Your task to perform on an android device: move an email to a new category in the gmail app Image 0: 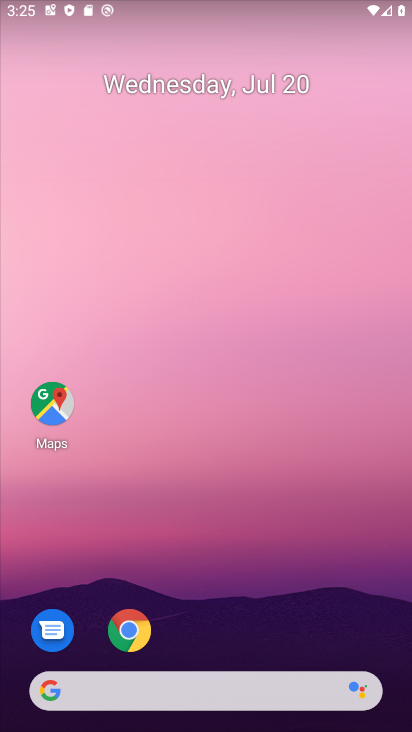
Step 0: press home button
Your task to perform on an android device: move an email to a new category in the gmail app Image 1: 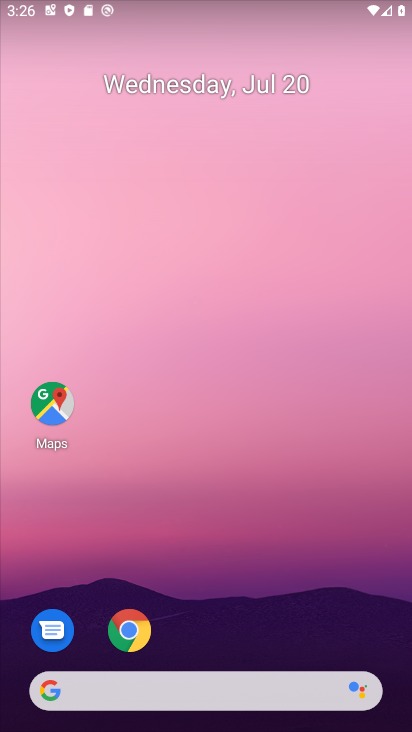
Step 1: drag from (203, 652) to (219, 203)
Your task to perform on an android device: move an email to a new category in the gmail app Image 2: 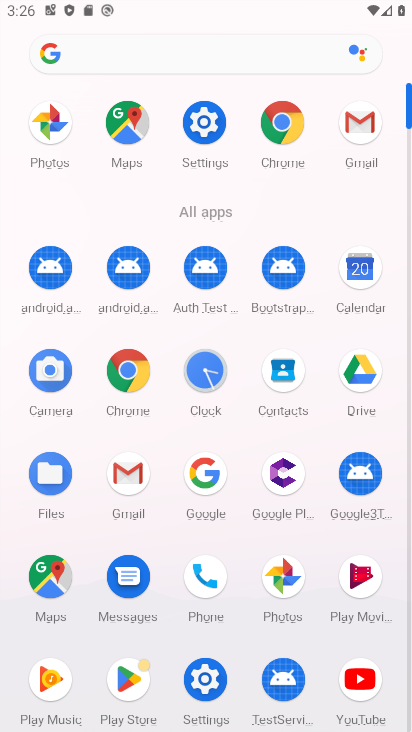
Step 2: click (125, 468)
Your task to perform on an android device: move an email to a new category in the gmail app Image 3: 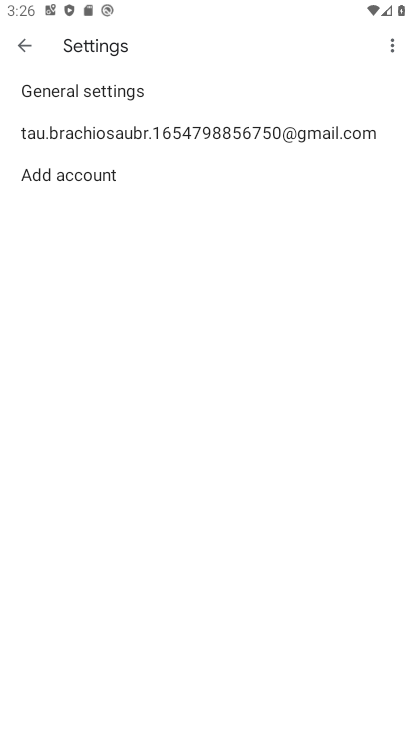
Step 3: click (25, 42)
Your task to perform on an android device: move an email to a new category in the gmail app Image 4: 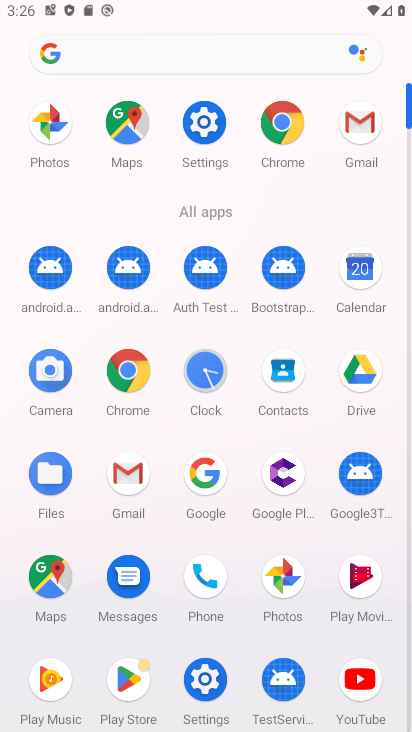
Step 4: click (363, 118)
Your task to perform on an android device: move an email to a new category in the gmail app Image 5: 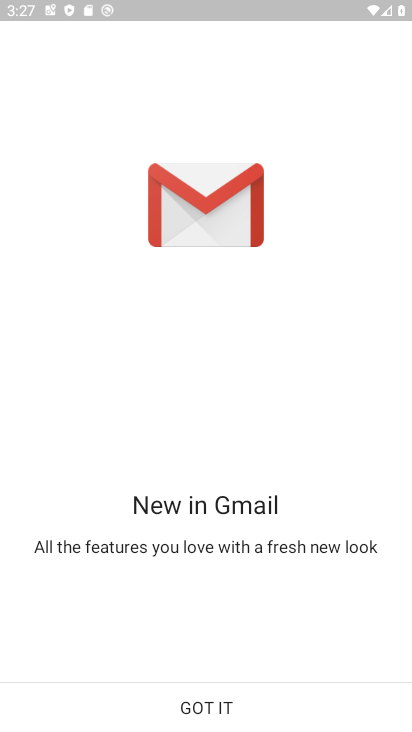
Step 5: click (211, 697)
Your task to perform on an android device: move an email to a new category in the gmail app Image 6: 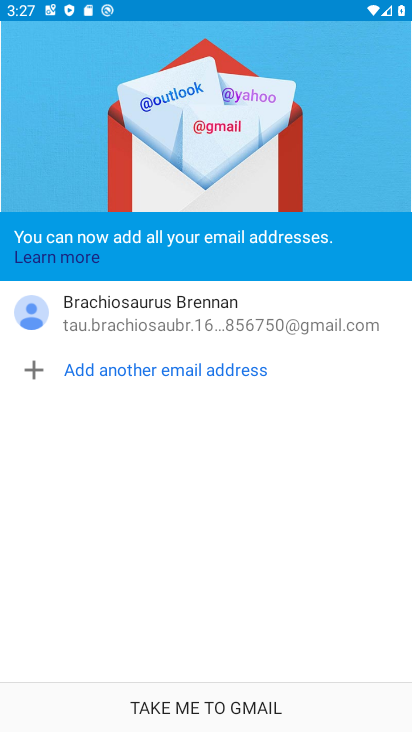
Step 6: click (211, 709)
Your task to perform on an android device: move an email to a new category in the gmail app Image 7: 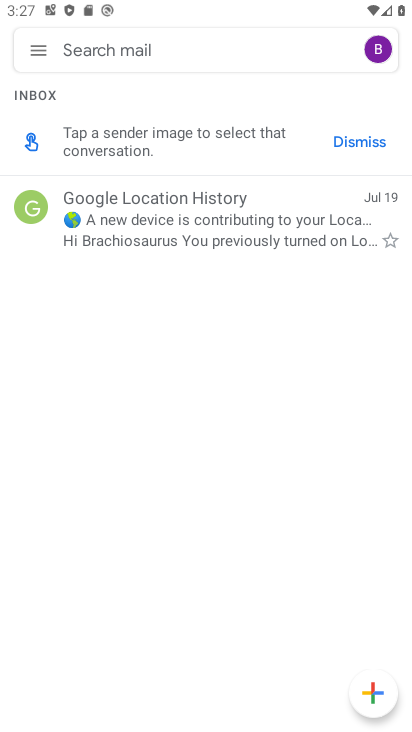
Step 7: click (29, 203)
Your task to perform on an android device: move an email to a new category in the gmail app Image 8: 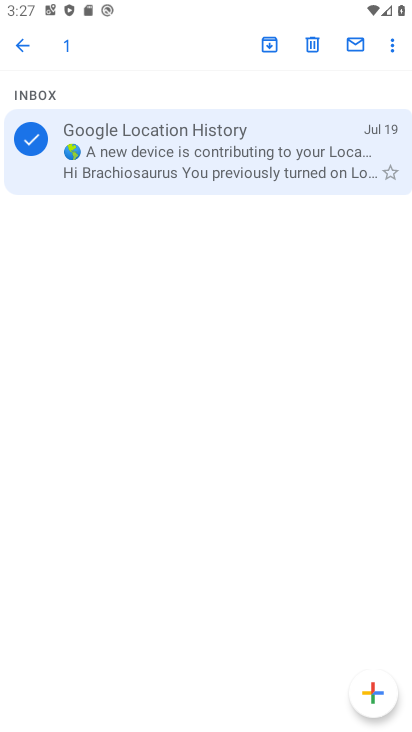
Step 8: click (395, 43)
Your task to perform on an android device: move an email to a new category in the gmail app Image 9: 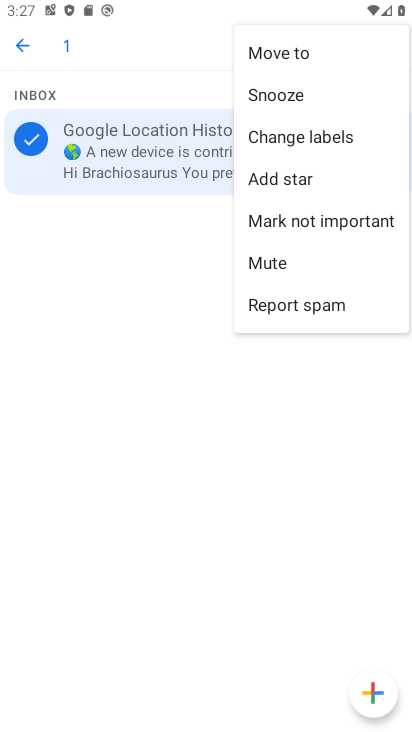
Step 9: click (301, 48)
Your task to perform on an android device: move an email to a new category in the gmail app Image 10: 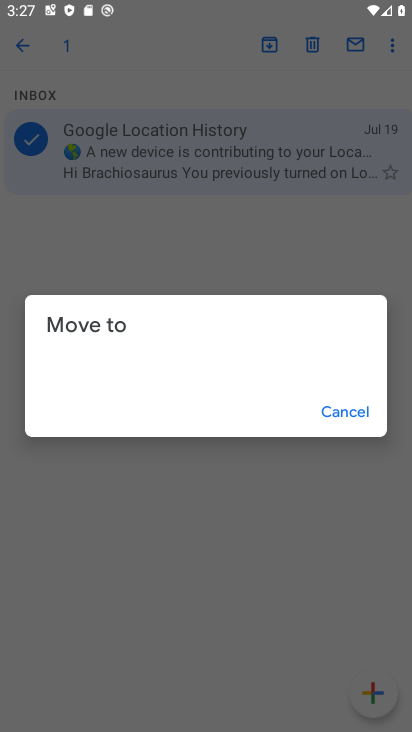
Step 10: click (345, 405)
Your task to perform on an android device: move an email to a new category in the gmail app Image 11: 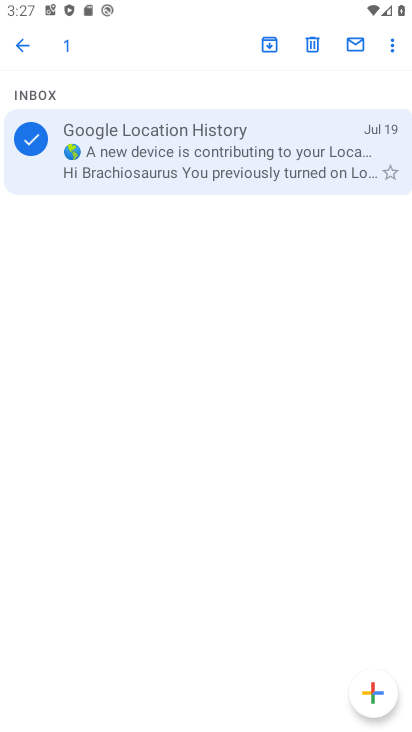
Step 11: task complete